Your task to perform on an android device: Open Maps and search for coffee Image 0: 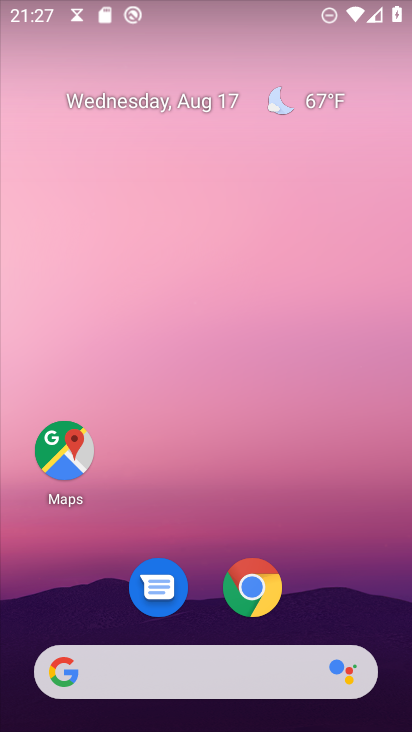
Step 0: click (54, 459)
Your task to perform on an android device: Open Maps and search for coffee Image 1: 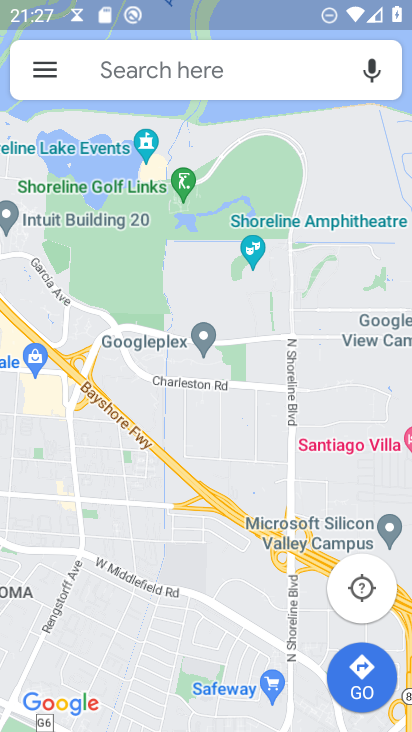
Step 1: click (97, 50)
Your task to perform on an android device: Open Maps and search for coffee Image 2: 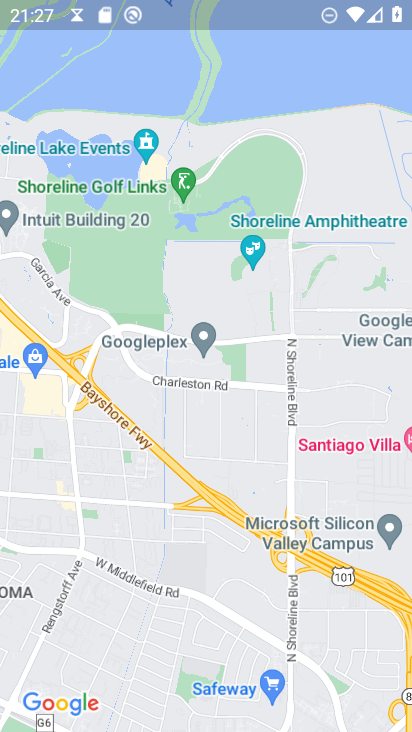
Step 2: click (193, 169)
Your task to perform on an android device: Open Maps and search for coffee Image 3: 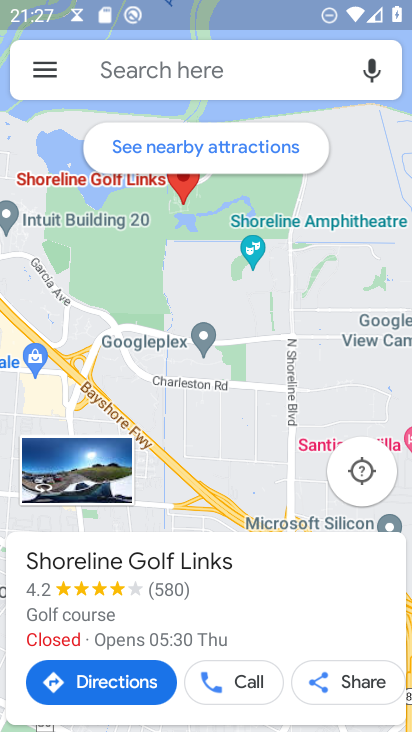
Step 3: click (128, 57)
Your task to perform on an android device: Open Maps and search for coffee Image 4: 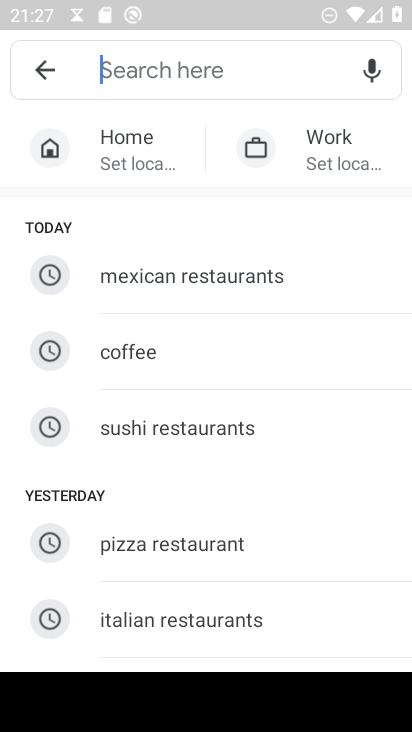
Step 4: click (135, 350)
Your task to perform on an android device: Open Maps and search for coffee Image 5: 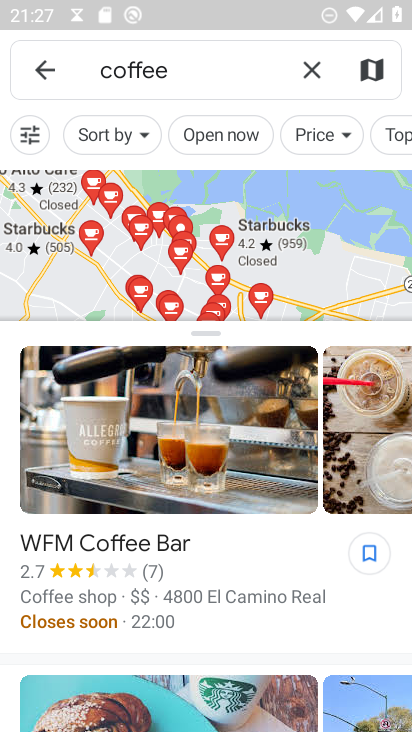
Step 5: task complete